Your task to perform on an android device: Search for "jbl charge 4" on costco.com, select the first entry, and add it to the cart. Image 0: 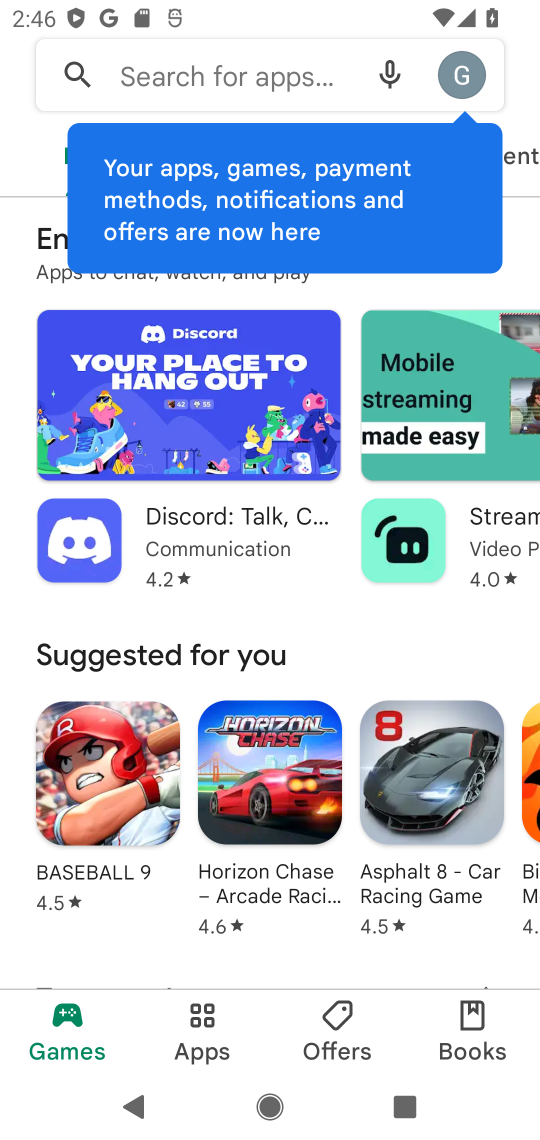
Step 0: press home button
Your task to perform on an android device: Search for "jbl charge 4" on costco.com, select the first entry, and add it to the cart. Image 1: 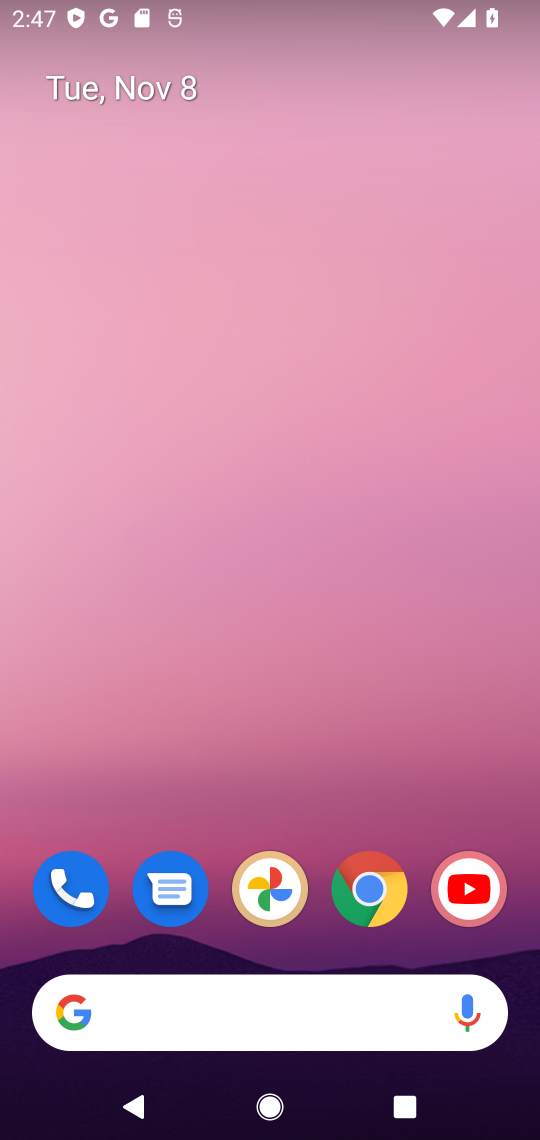
Step 1: click (369, 896)
Your task to perform on an android device: Search for "jbl charge 4" on costco.com, select the first entry, and add it to the cart. Image 2: 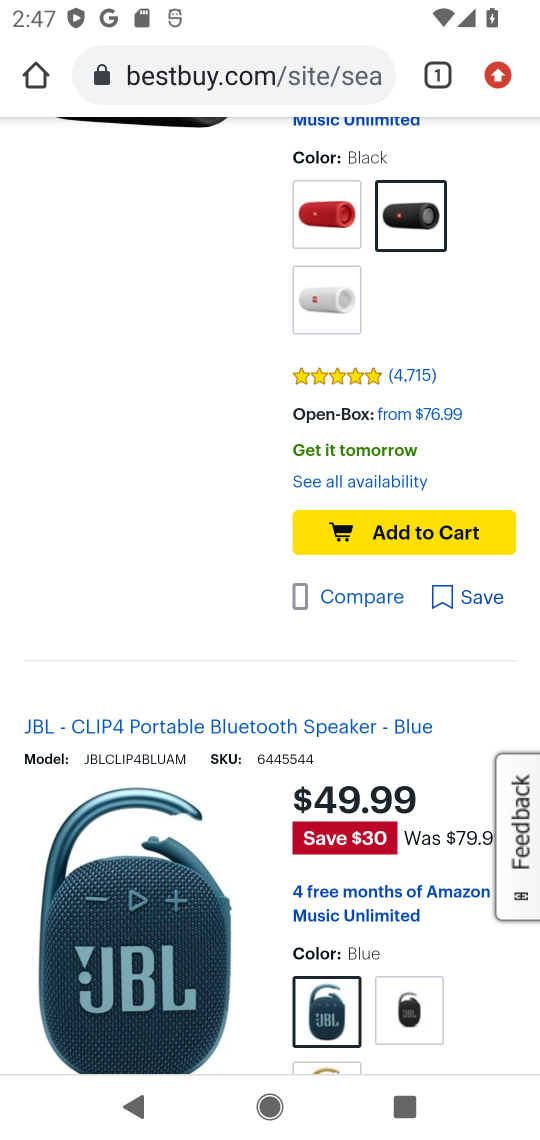
Step 2: click (227, 81)
Your task to perform on an android device: Search for "jbl charge 4" on costco.com, select the first entry, and add it to the cart. Image 3: 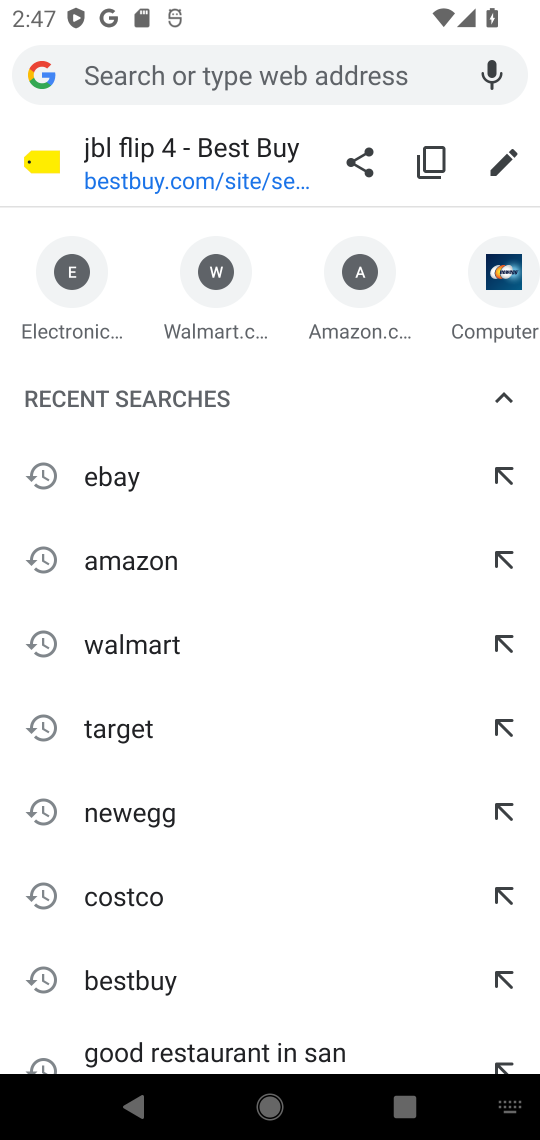
Step 3: type "costco.com"
Your task to perform on an android device: Search for "jbl charge 4" on costco.com, select the first entry, and add it to the cart. Image 4: 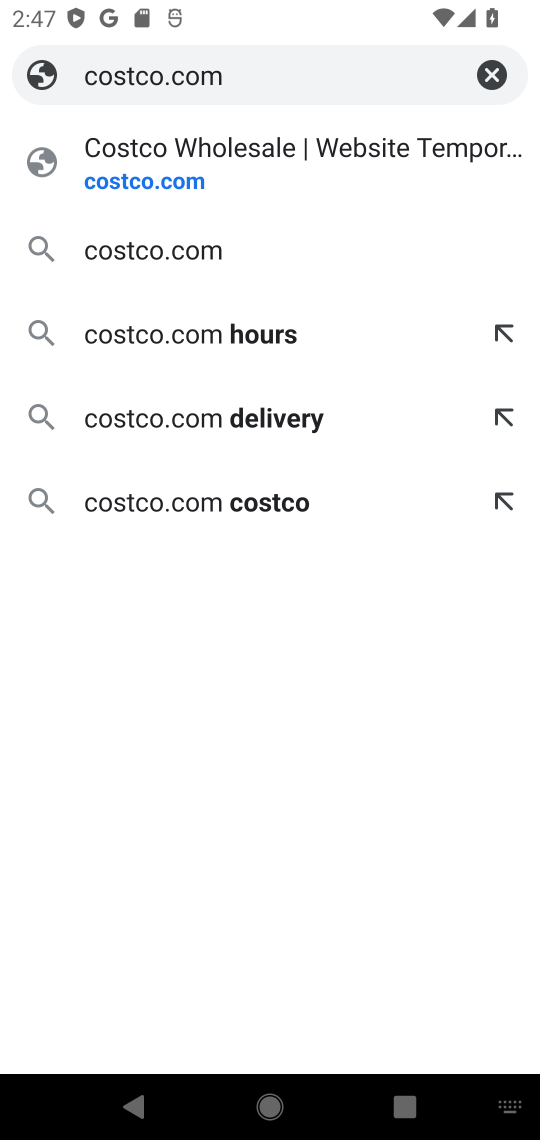
Step 4: click (184, 173)
Your task to perform on an android device: Search for "jbl charge 4" on costco.com, select the first entry, and add it to the cart. Image 5: 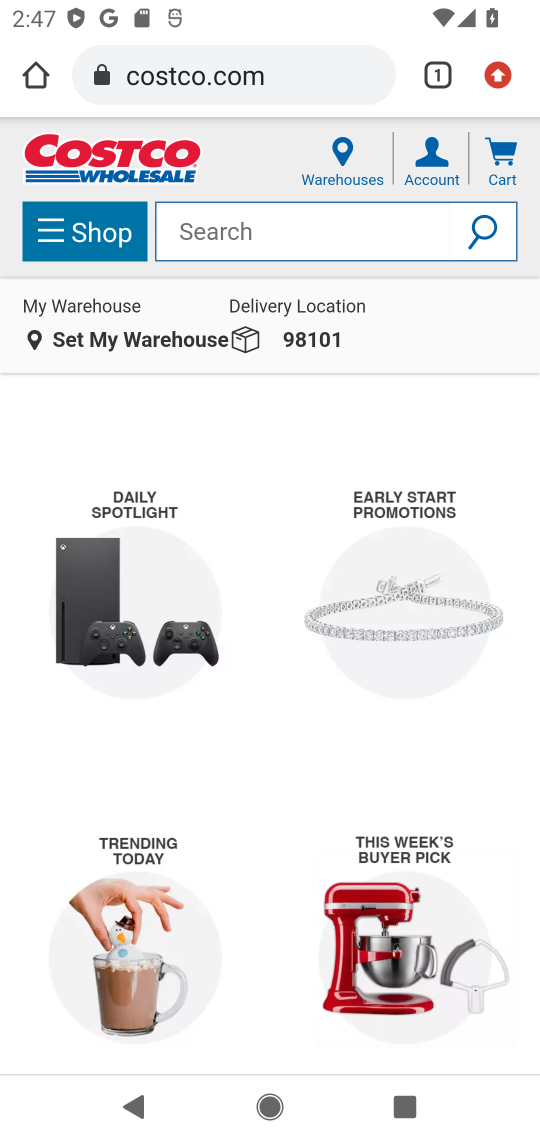
Step 5: click (265, 237)
Your task to perform on an android device: Search for "jbl charge 4" on costco.com, select the first entry, and add it to the cart. Image 6: 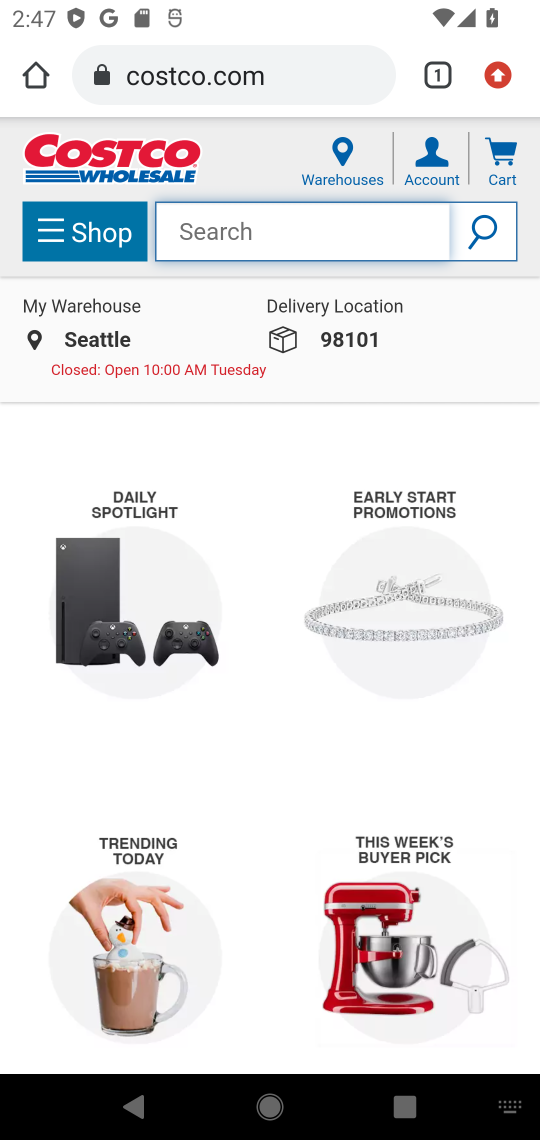
Step 6: type "jbl charge 4"
Your task to perform on an android device: Search for "jbl charge 4" on costco.com, select the first entry, and add it to the cart. Image 7: 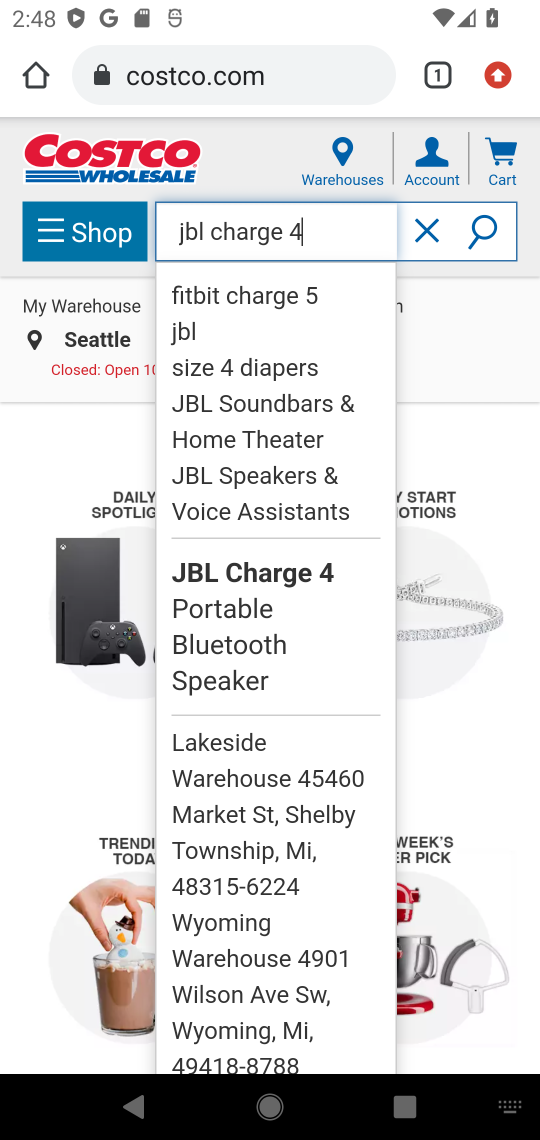
Step 7: click (480, 222)
Your task to perform on an android device: Search for "jbl charge 4" on costco.com, select the first entry, and add it to the cart. Image 8: 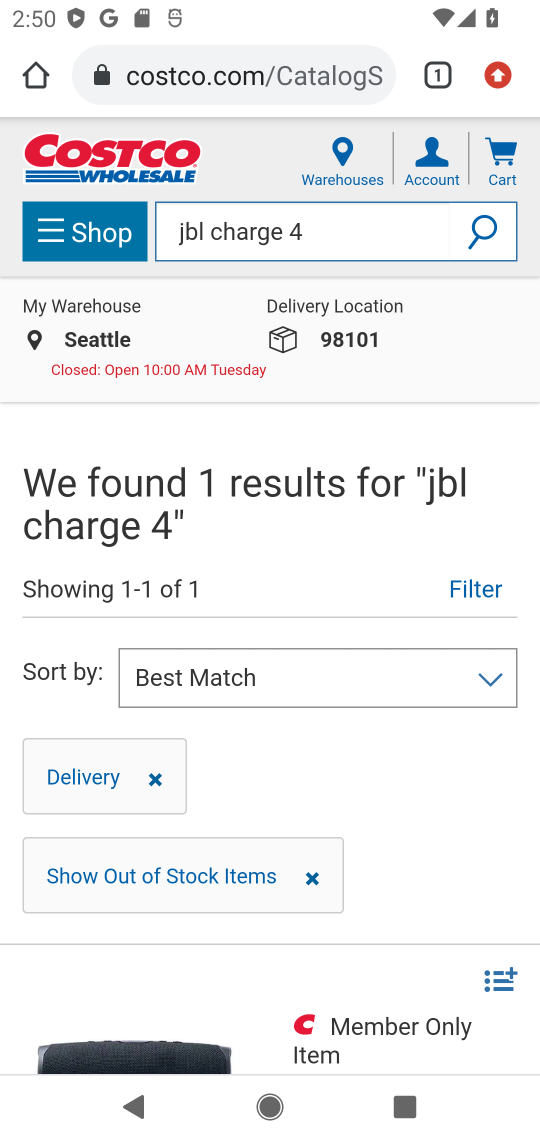
Step 8: drag from (245, 760) to (292, 371)
Your task to perform on an android device: Search for "jbl charge 4" on costco.com, select the first entry, and add it to the cart. Image 9: 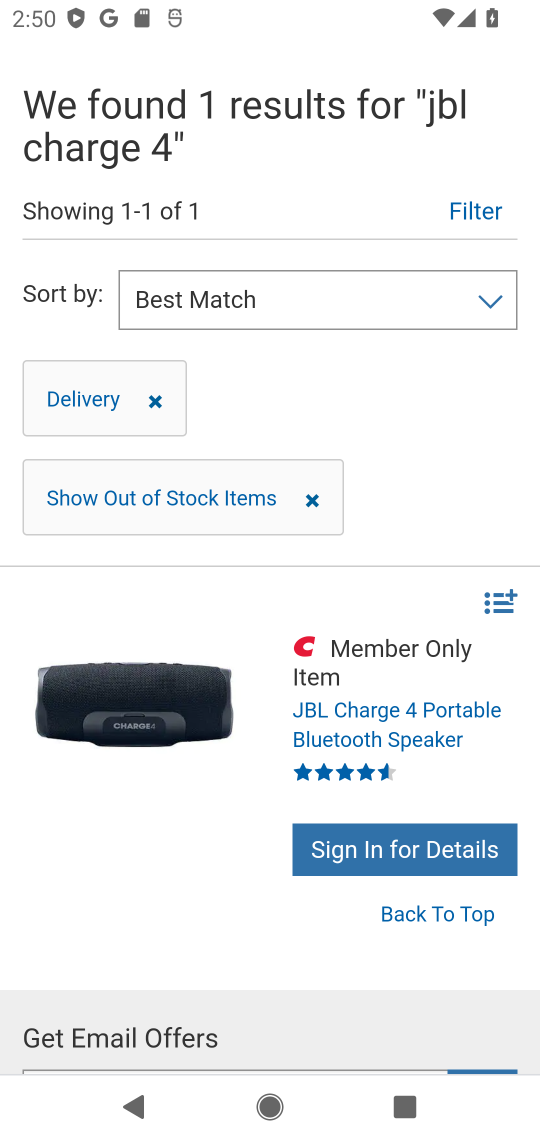
Step 9: drag from (237, 775) to (261, 618)
Your task to perform on an android device: Search for "jbl charge 4" on costco.com, select the first entry, and add it to the cart. Image 10: 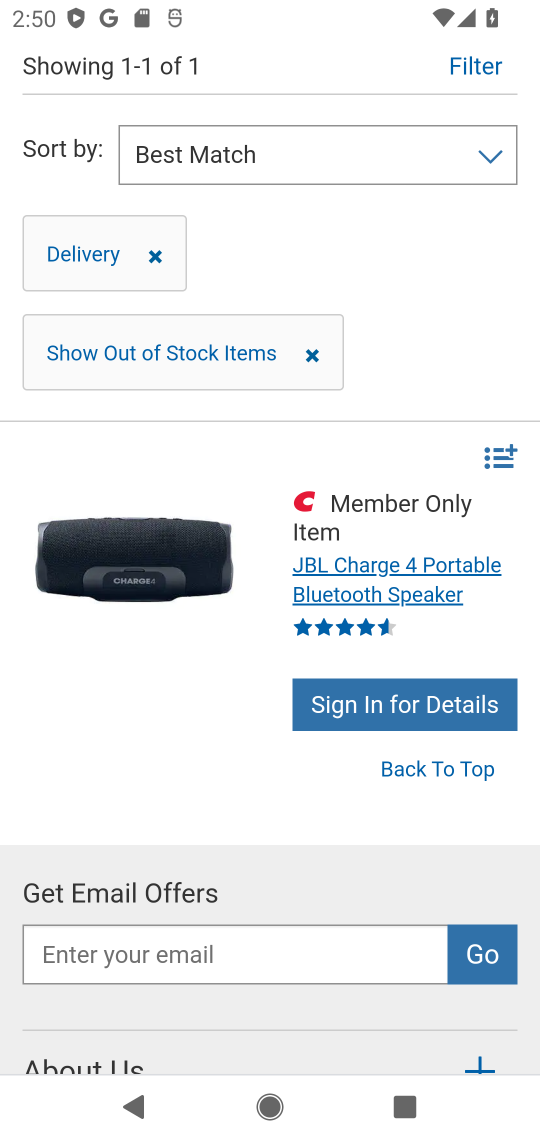
Step 10: click (203, 580)
Your task to perform on an android device: Search for "jbl charge 4" on costco.com, select the first entry, and add it to the cart. Image 11: 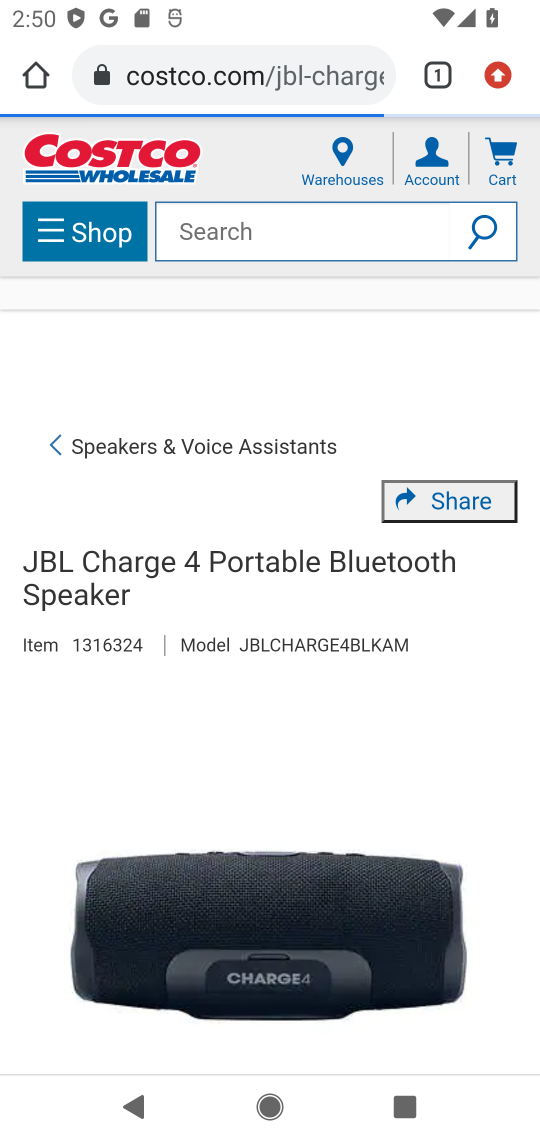
Step 11: task complete